Your task to perform on an android device: What's on my calendar tomorrow? Image 0: 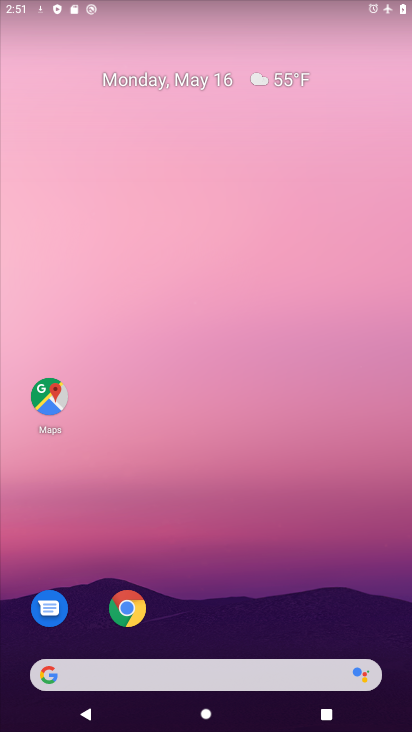
Step 0: drag from (175, 612) to (176, 253)
Your task to perform on an android device: What's on my calendar tomorrow? Image 1: 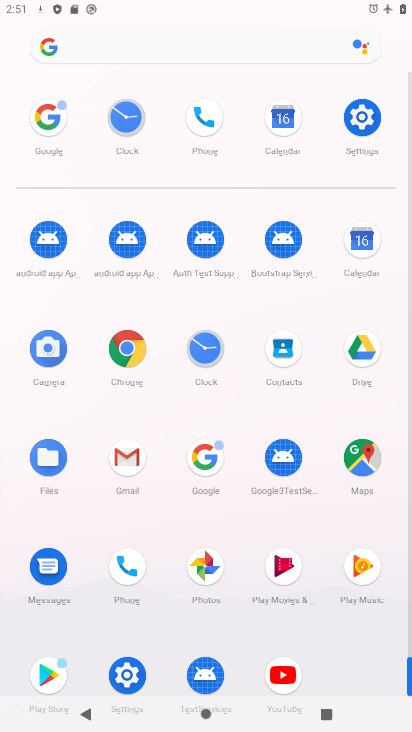
Step 1: click (283, 126)
Your task to perform on an android device: What's on my calendar tomorrow? Image 2: 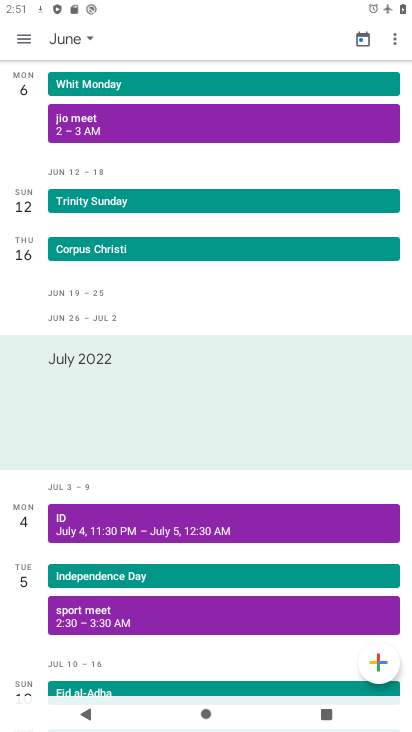
Step 2: click (85, 42)
Your task to perform on an android device: What's on my calendar tomorrow? Image 3: 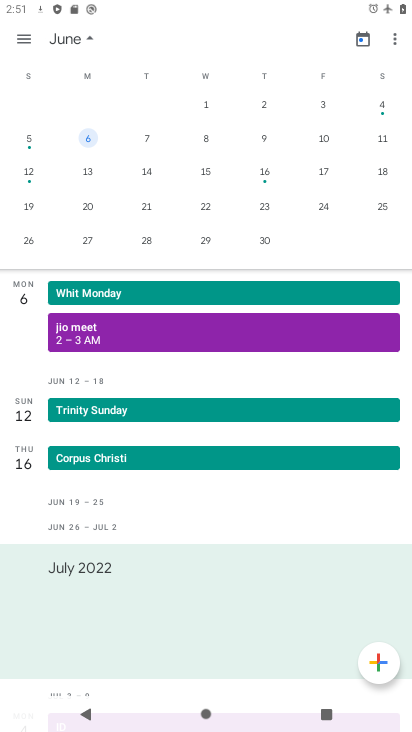
Step 3: drag from (166, 162) to (357, 174)
Your task to perform on an android device: What's on my calendar tomorrow? Image 4: 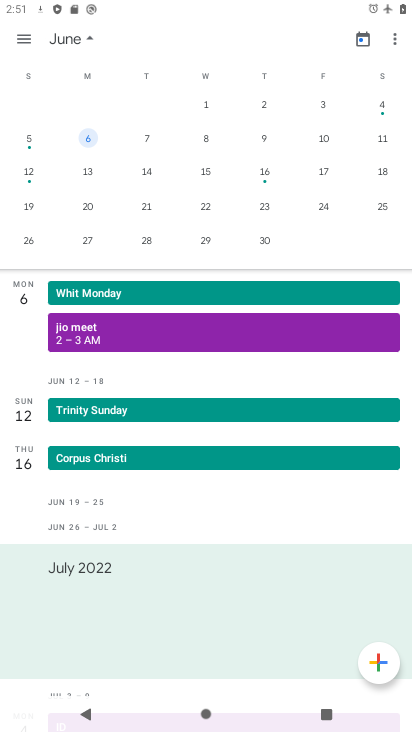
Step 4: drag from (65, 159) to (338, 135)
Your task to perform on an android device: What's on my calendar tomorrow? Image 5: 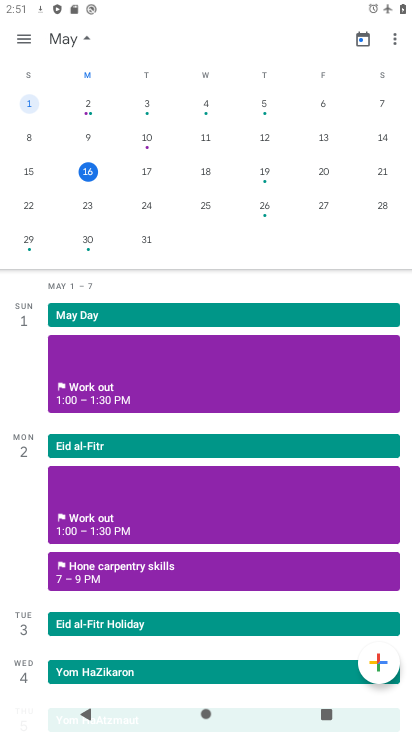
Step 5: click (161, 168)
Your task to perform on an android device: What's on my calendar tomorrow? Image 6: 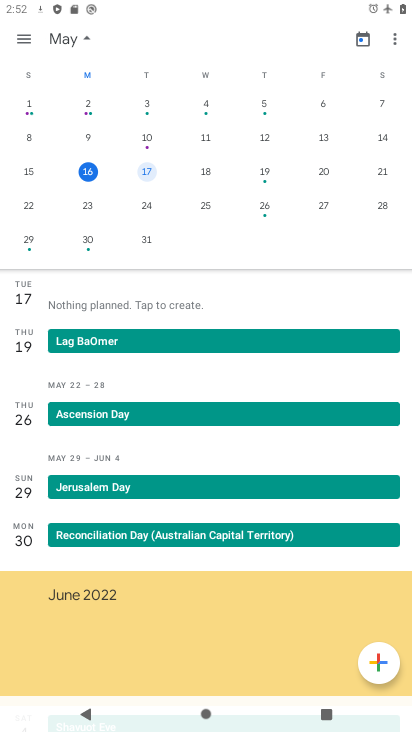
Step 6: task complete